Your task to perform on an android device: change the clock display to show seconds Image 0: 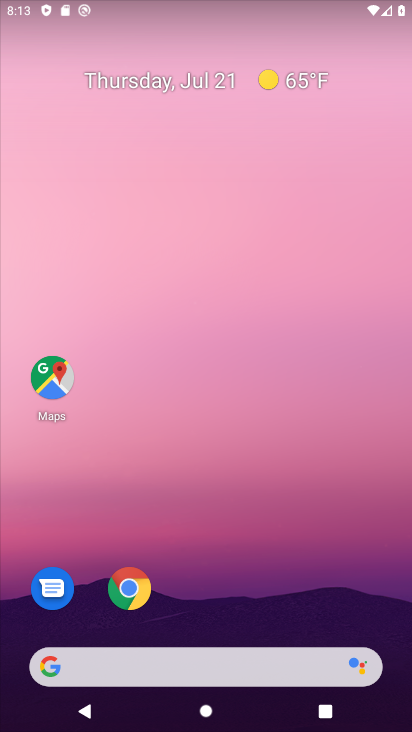
Step 0: drag from (263, 636) to (230, 3)
Your task to perform on an android device: change the clock display to show seconds Image 1: 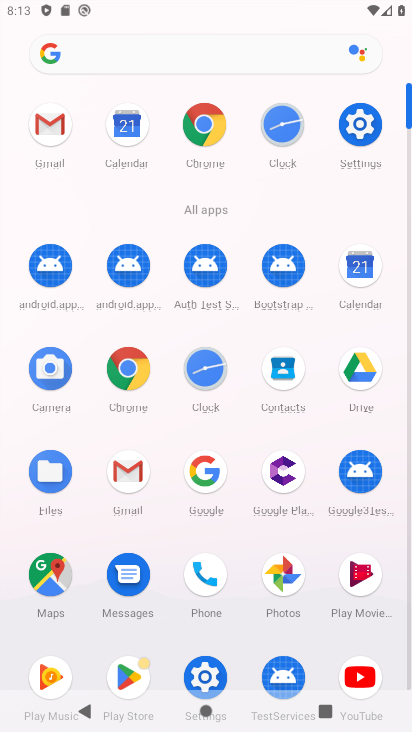
Step 1: click (213, 371)
Your task to perform on an android device: change the clock display to show seconds Image 2: 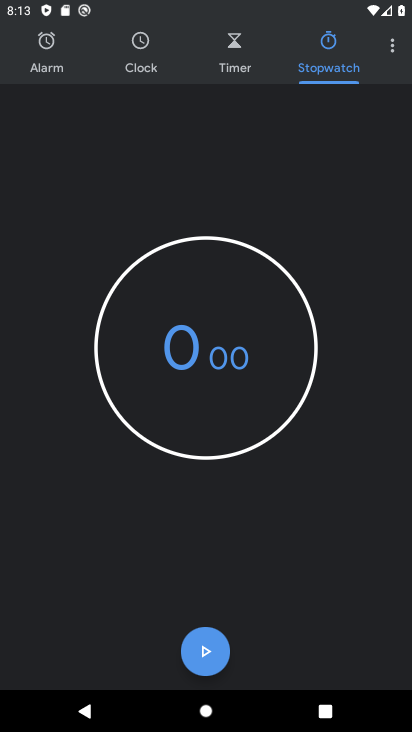
Step 2: click (385, 54)
Your task to perform on an android device: change the clock display to show seconds Image 3: 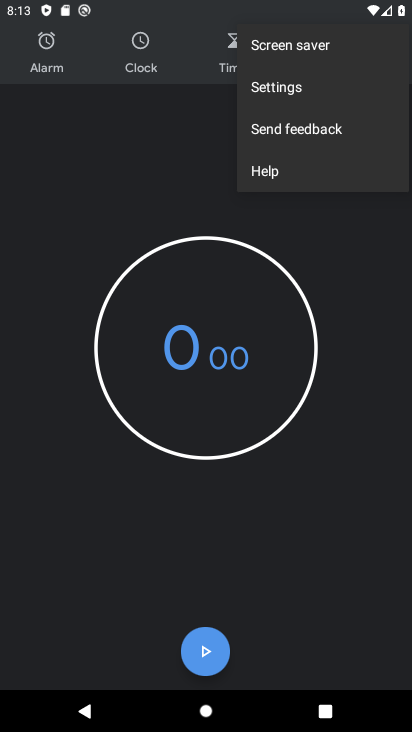
Step 3: click (307, 86)
Your task to perform on an android device: change the clock display to show seconds Image 4: 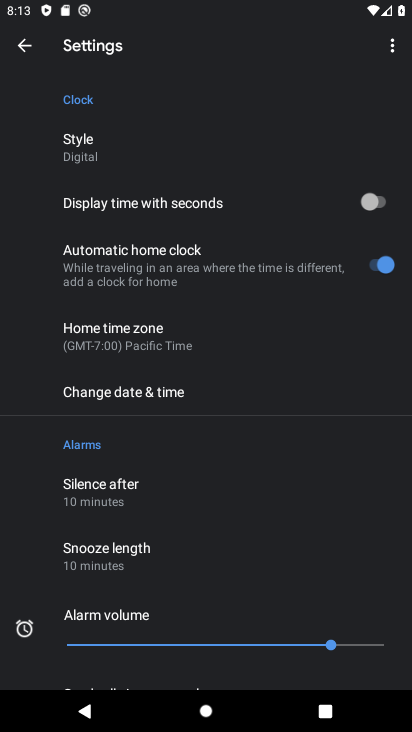
Step 4: click (224, 202)
Your task to perform on an android device: change the clock display to show seconds Image 5: 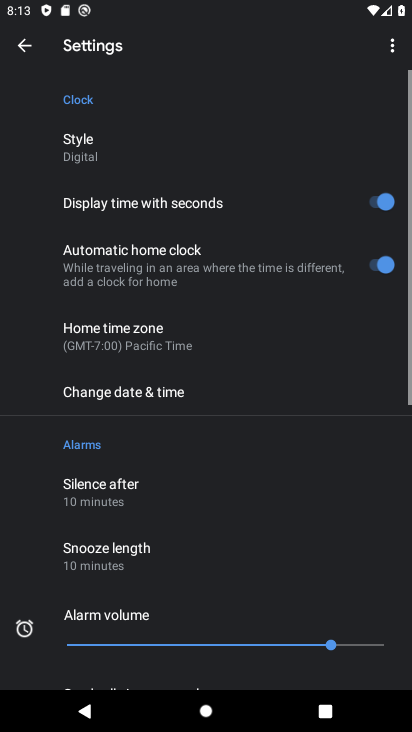
Step 5: task complete